Your task to perform on an android device: open a bookmark in the chrome app Image 0: 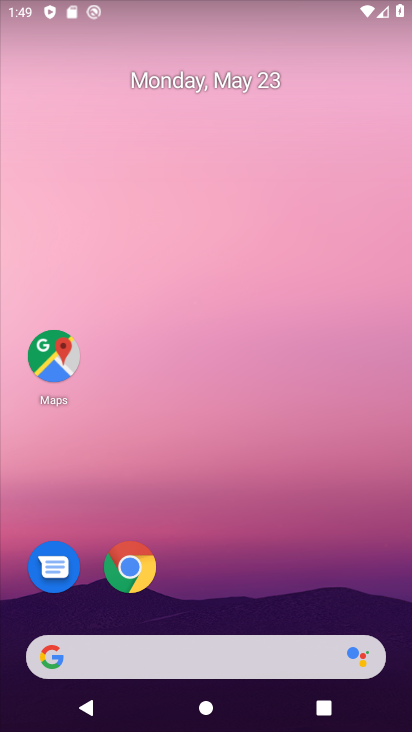
Step 0: click (129, 566)
Your task to perform on an android device: open a bookmark in the chrome app Image 1: 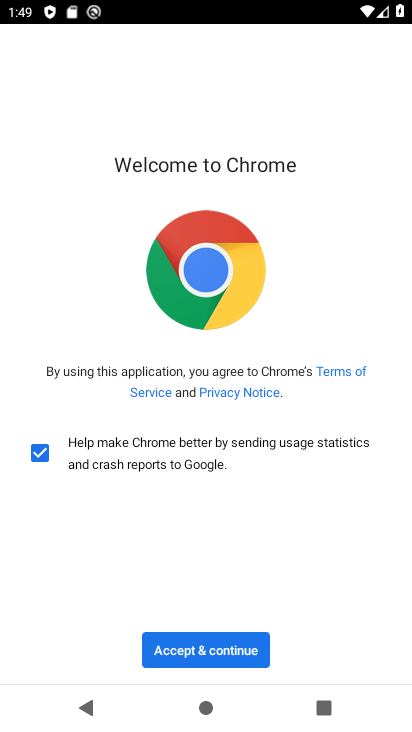
Step 1: click (199, 648)
Your task to perform on an android device: open a bookmark in the chrome app Image 2: 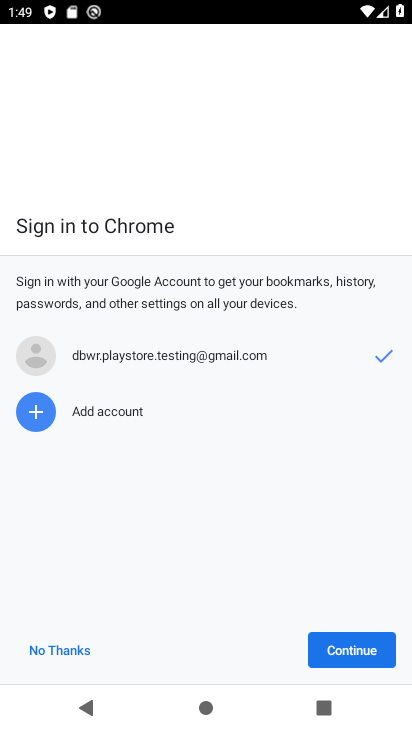
Step 2: click (346, 658)
Your task to perform on an android device: open a bookmark in the chrome app Image 3: 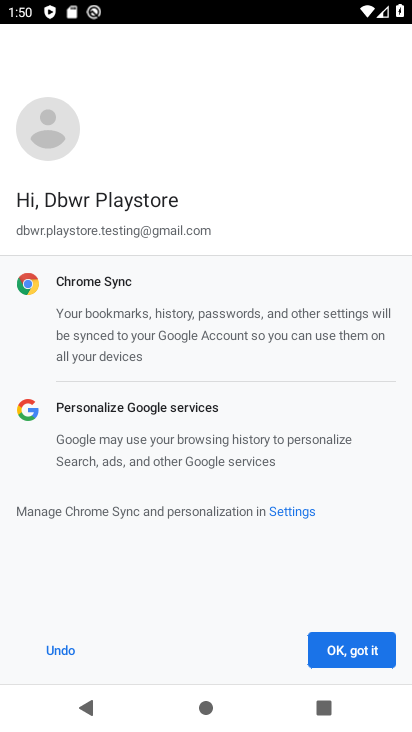
Step 3: click (361, 659)
Your task to perform on an android device: open a bookmark in the chrome app Image 4: 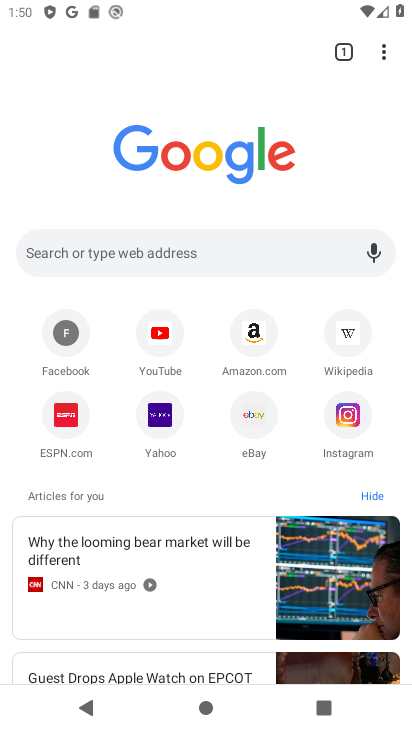
Step 4: click (383, 51)
Your task to perform on an android device: open a bookmark in the chrome app Image 5: 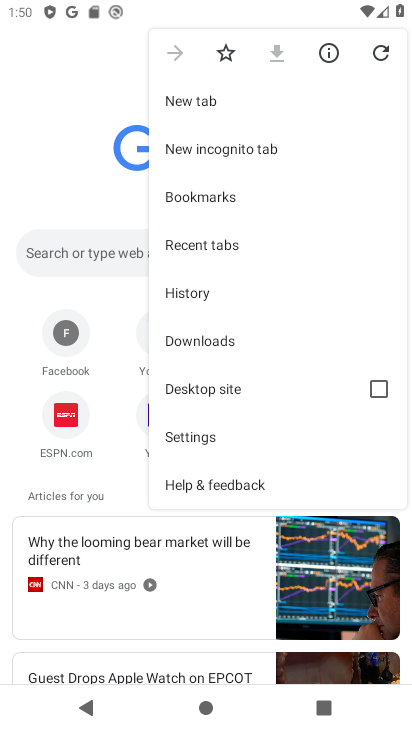
Step 5: click (226, 211)
Your task to perform on an android device: open a bookmark in the chrome app Image 6: 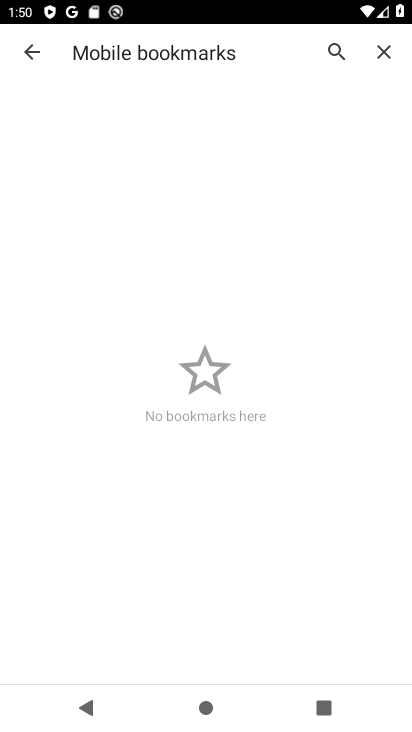
Step 6: task complete